Your task to perform on an android device: turn on showing notifications on the lock screen Image 0: 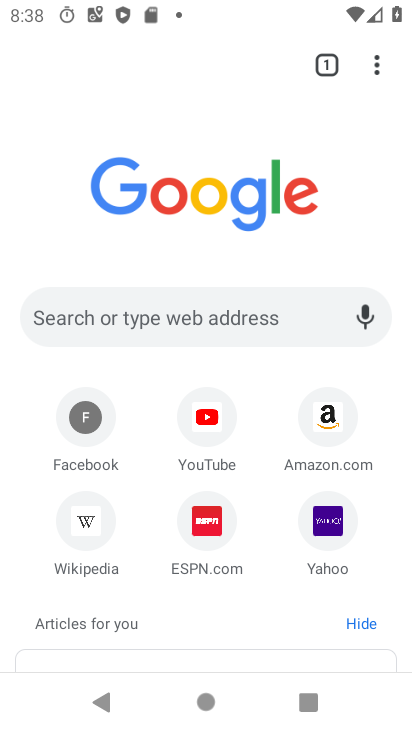
Step 0: press home button
Your task to perform on an android device: turn on showing notifications on the lock screen Image 1: 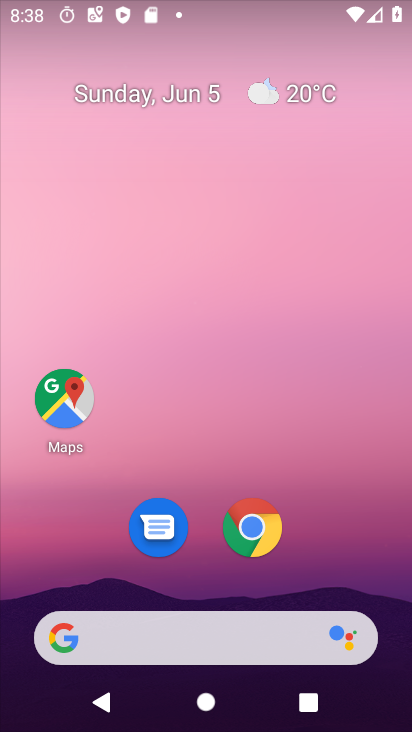
Step 1: drag from (233, 722) to (208, 56)
Your task to perform on an android device: turn on showing notifications on the lock screen Image 2: 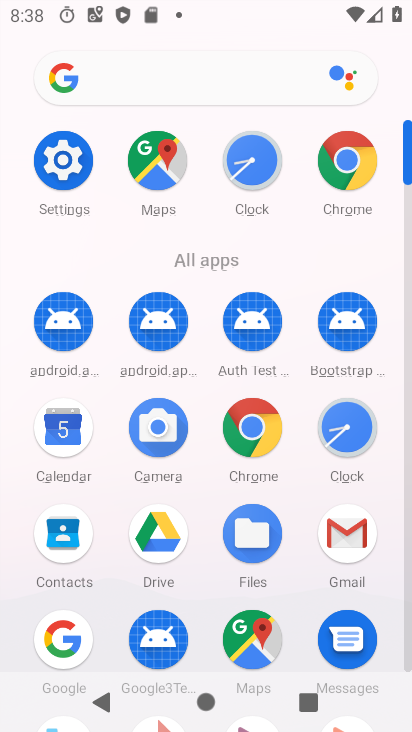
Step 2: click (69, 171)
Your task to perform on an android device: turn on showing notifications on the lock screen Image 3: 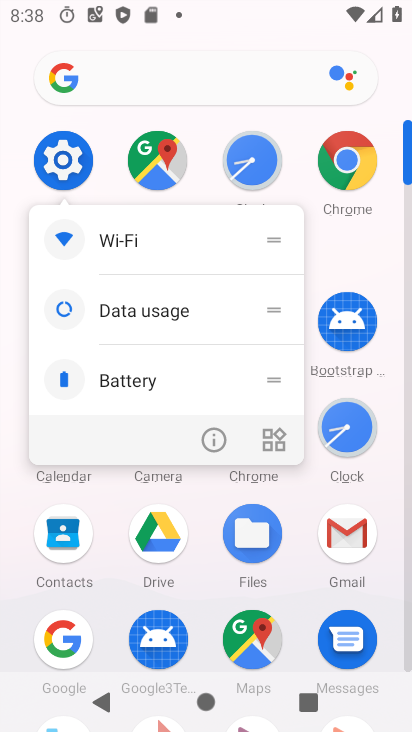
Step 3: click (59, 161)
Your task to perform on an android device: turn on showing notifications on the lock screen Image 4: 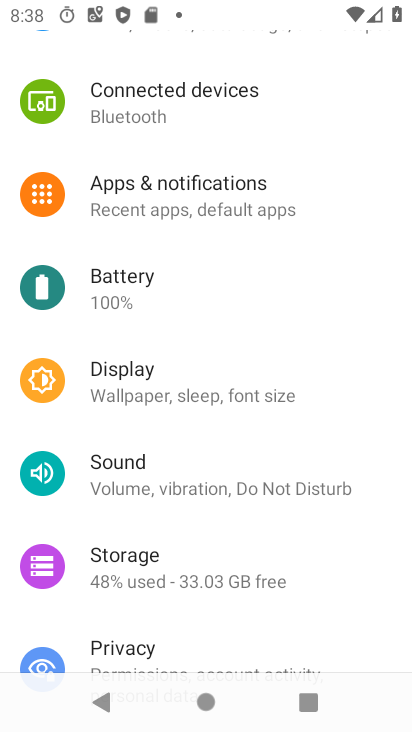
Step 4: click (179, 204)
Your task to perform on an android device: turn on showing notifications on the lock screen Image 5: 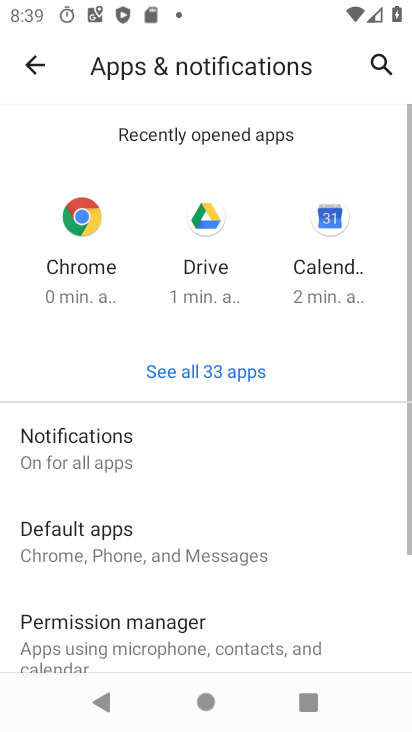
Step 5: click (92, 454)
Your task to perform on an android device: turn on showing notifications on the lock screen Image 6: 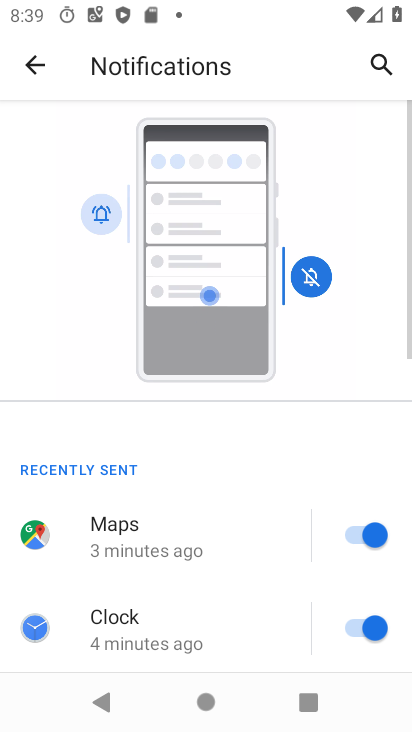
Step 6: drag from (207, 651) to (174, 313)
Your task to perform on an android device: turn on showing notifications on the lock screen Image 7: 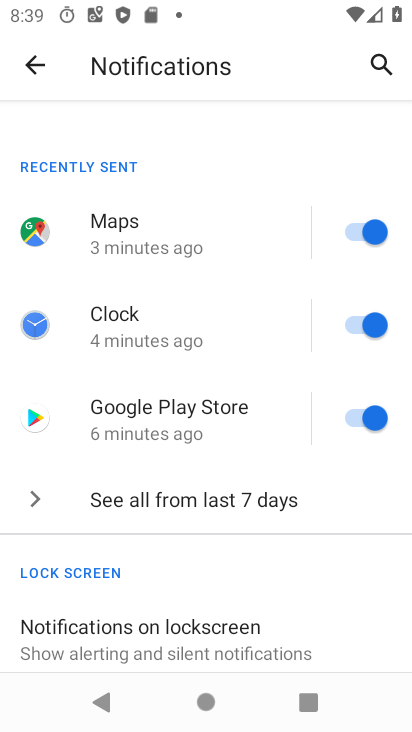
Step 7: drag from (199, 629) to (200, 342)
Your task to perform on an android device: turn on showing notifications on the lock screen Image 8: 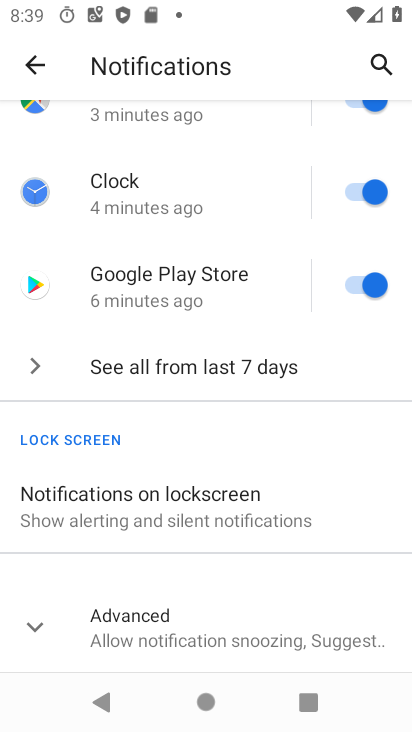
Step 8: click (195, 510)
Your task to perform on an android device: turn on showing notifications on the lock screen Image 9: 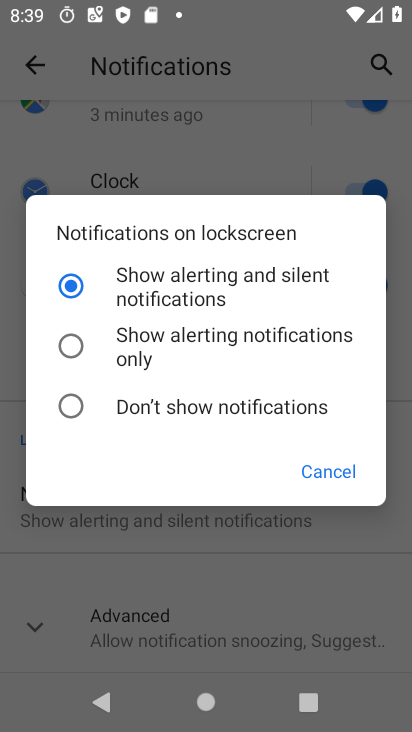
Step 9: click (313, 467)
Your task to perform on an android device: turn on showing notifications on the lock screen Image 10: 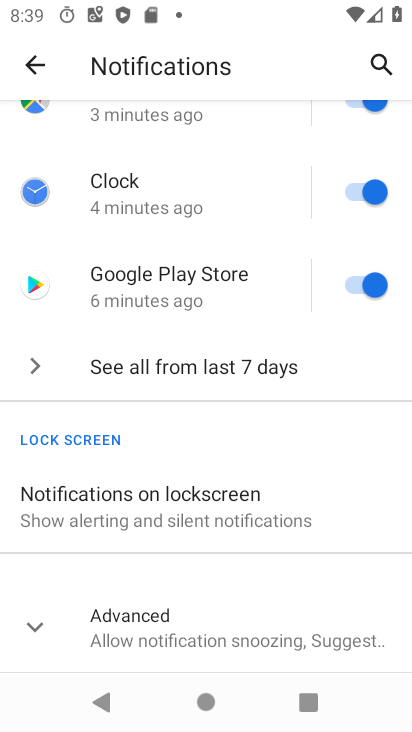
Step 10: task complete